Your task to perform on an android device: Go to Google maps Image 0: 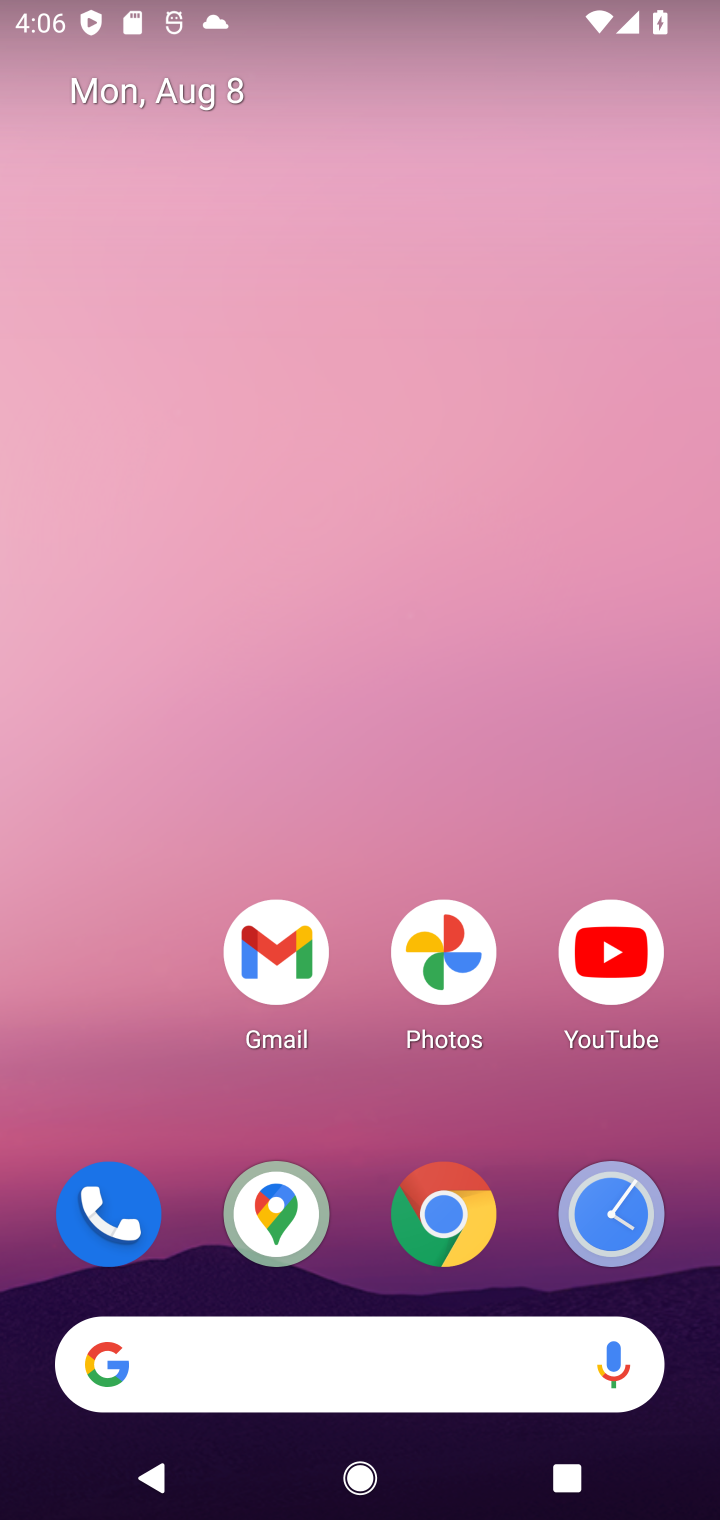
Step 0: drag from (348, 1307) to (357, 182)
Your task to perform on an android device: Go to Google maps Image 1: 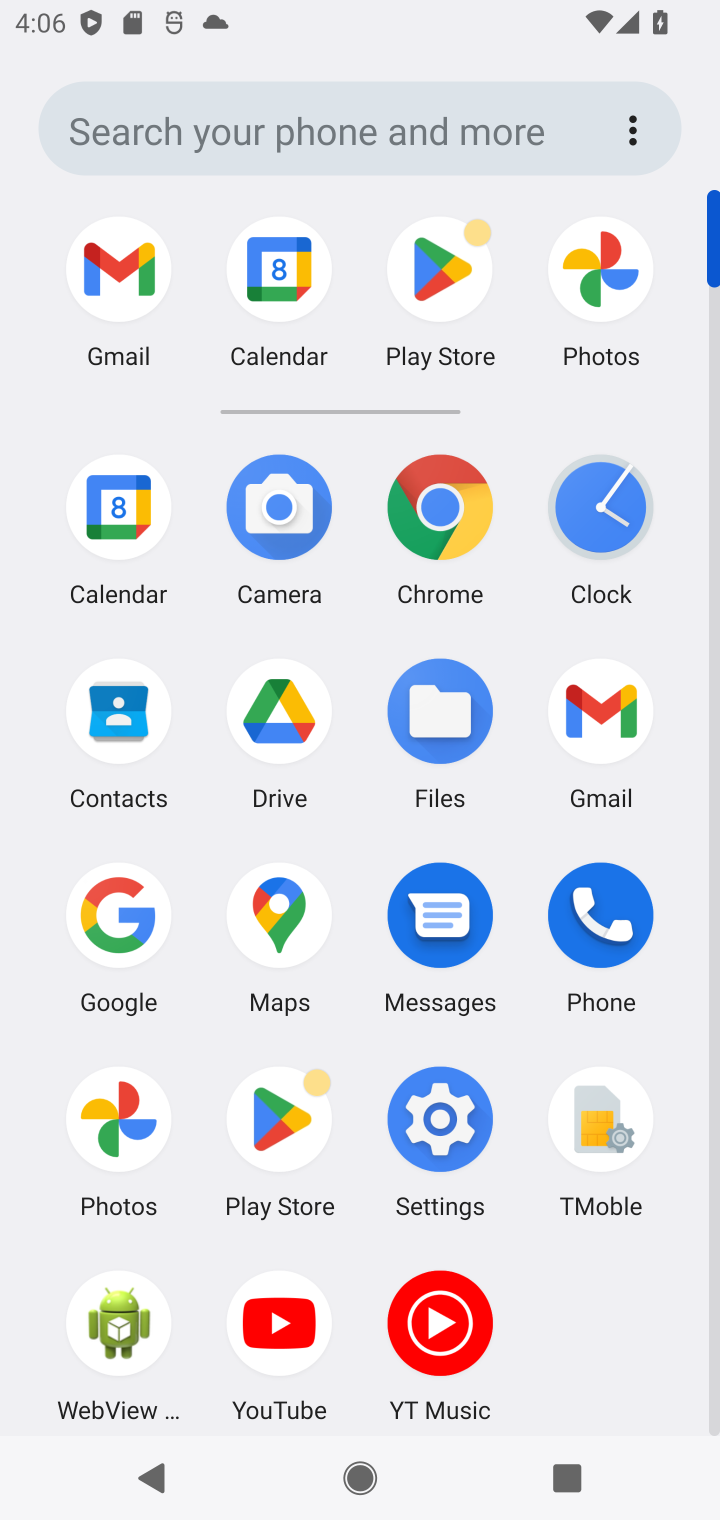
Step 1: click (284, 911)
Your task to perform on an android device: Go to Google maps Image 2: 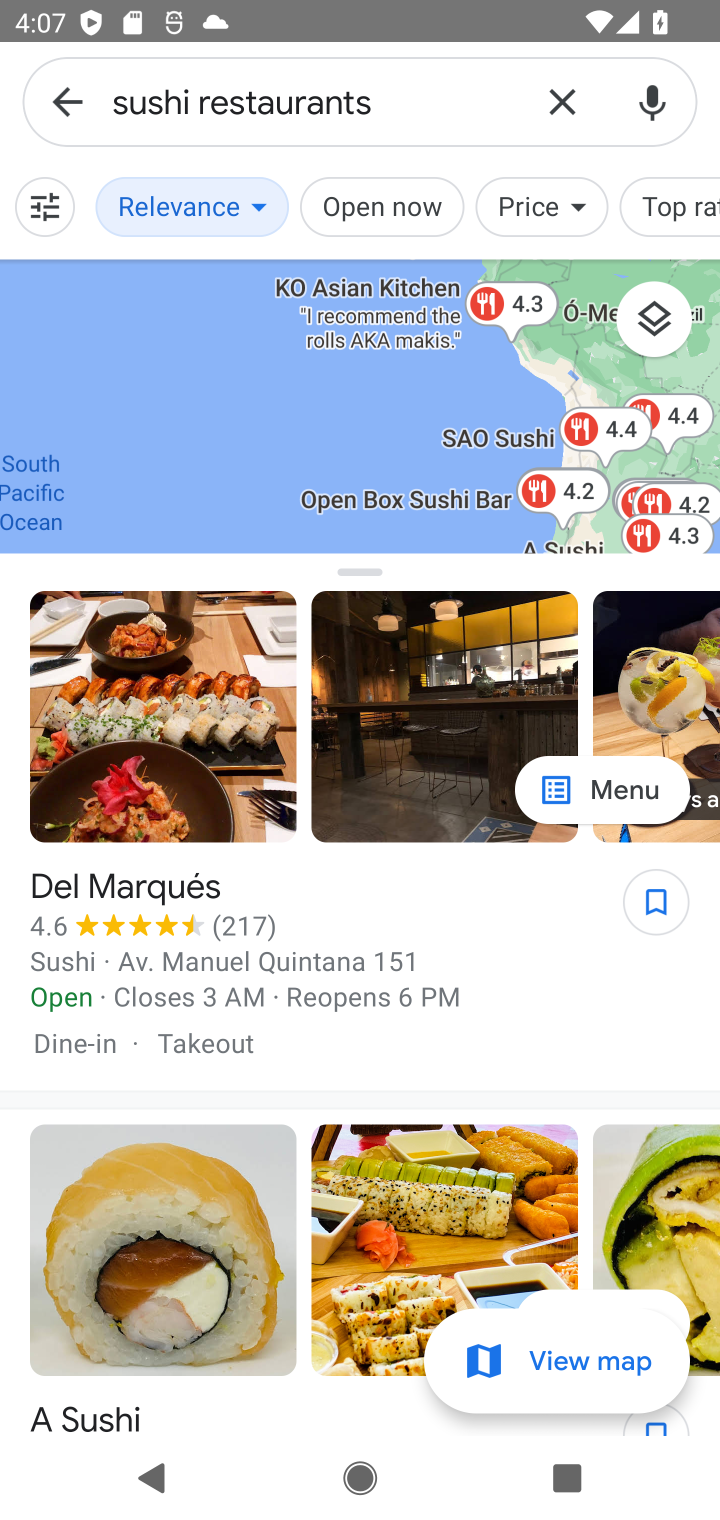
Step 2: task complete